Your task to perform on an android device: add a contact Image 0: 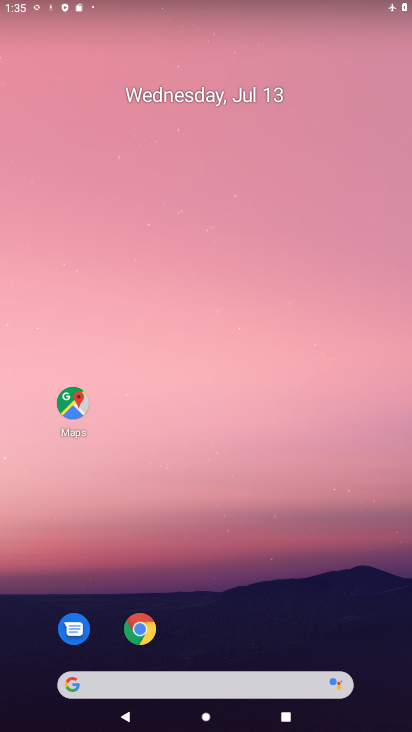
Step 0: click (249, 189)
Your task to perform on an android device: add a contact Image 1: 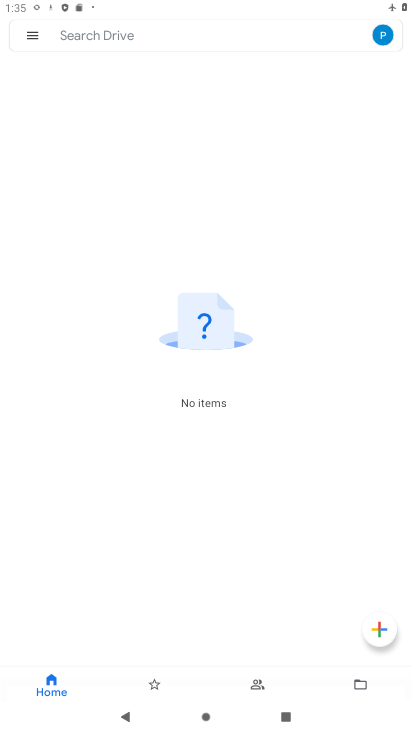
Step 1: press home button
Your task to perform on an android device: add a contact Image 2: 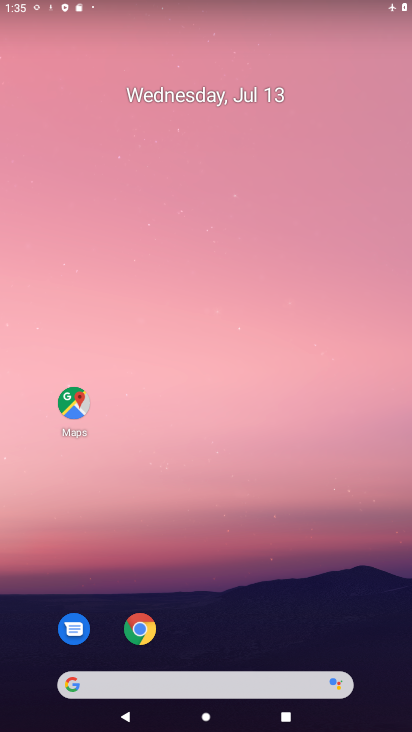
Step 2: drag from (181, 677) to (179, 249)
Your task to perform on an android device: add a contact Image 3: 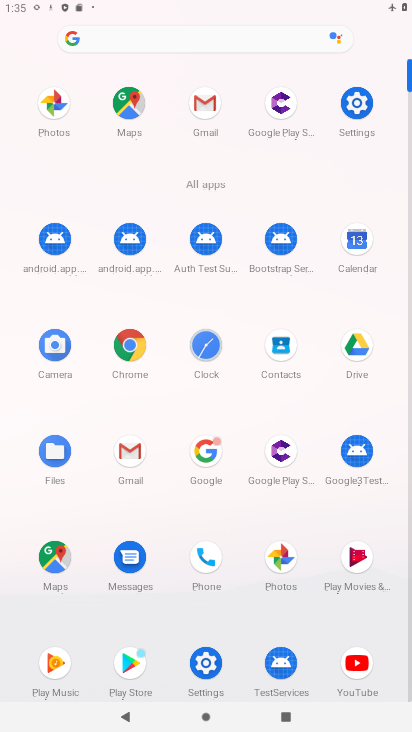
Step 3: click (278, 357)
Your task to perform on an android device: add a contact Image 4: 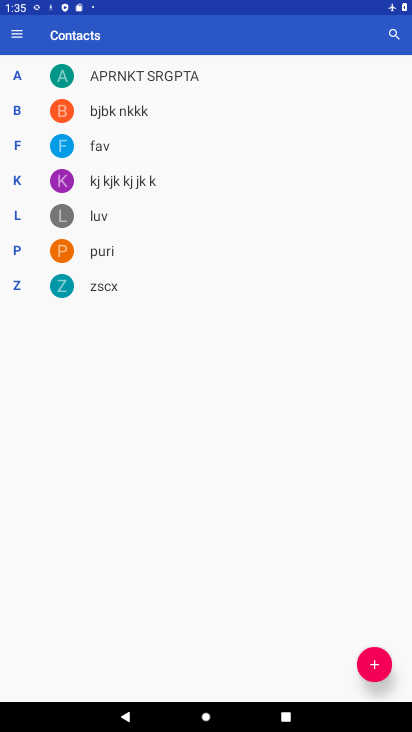
Step 4: click (366, 661)
Your task to perform on an android device: add a contact Image 5: 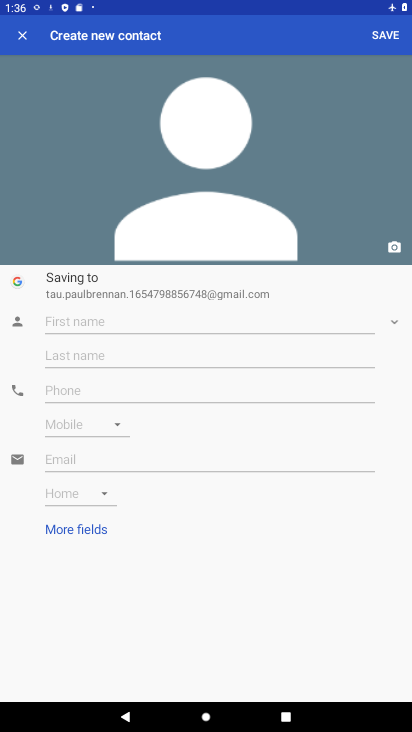
Step 5: click (168, 329)
Your task to perform on an android device: add a contact Image 6: 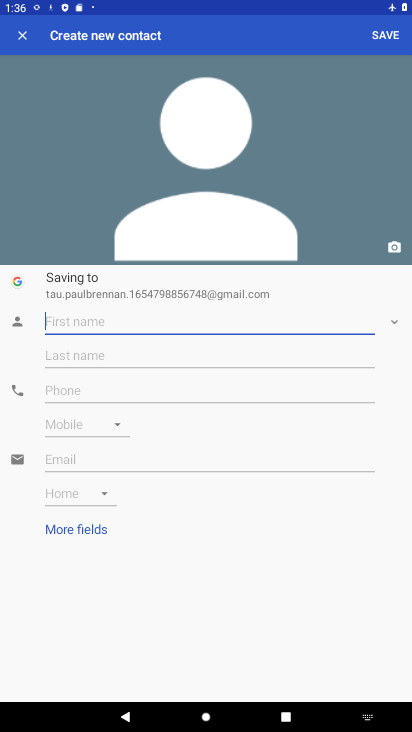
Step 6: type "sdfsdf"
Your task to perform on an android device: add a contact Image 7: 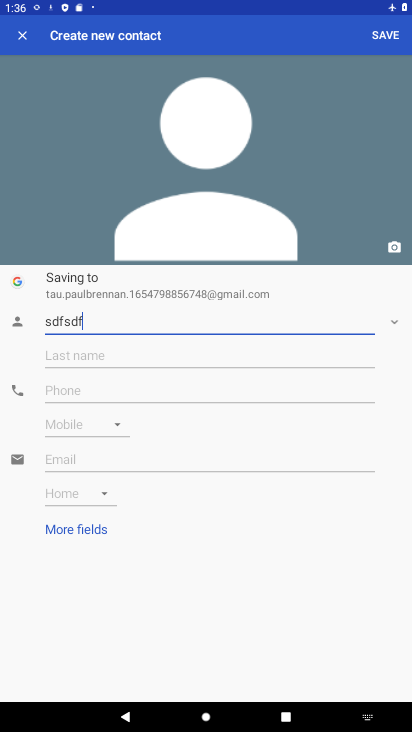
Step 7: click (160, 388)
Your task to perform on an android device: add a contact Image 8: 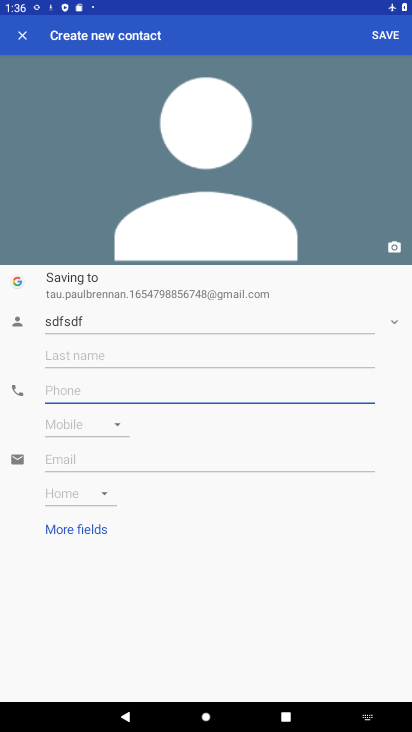
Step 8: type "12435465"
Your task to perform on an android device: add a contact Image 9: 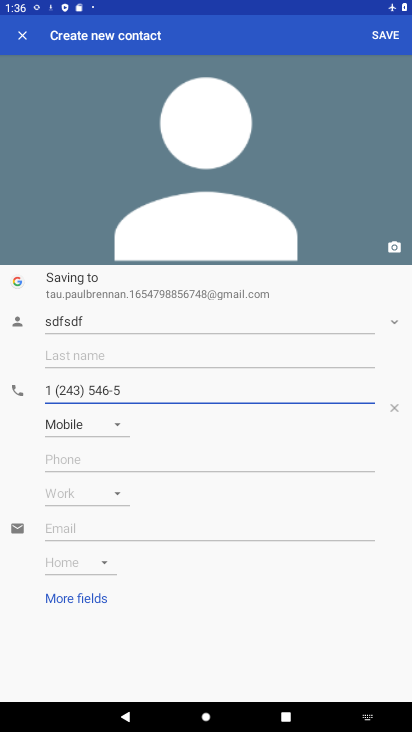
Step 9: click (384, 40)
Your task to perform on an android device: add a contact Image 10: 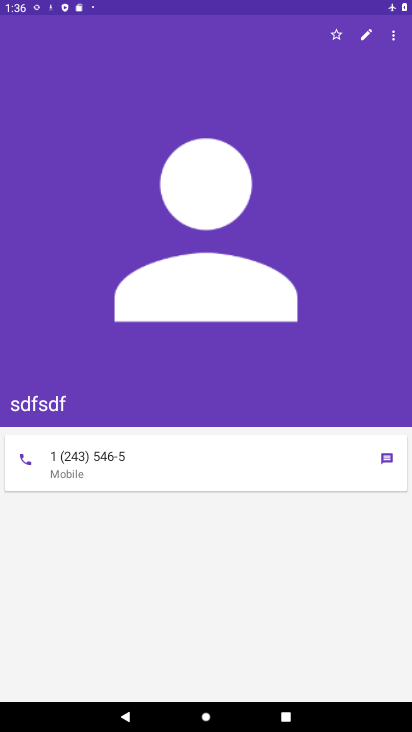
Step 10: task complete